Your task to perform on an android device: see sites visited before in the chrome app Image 0: 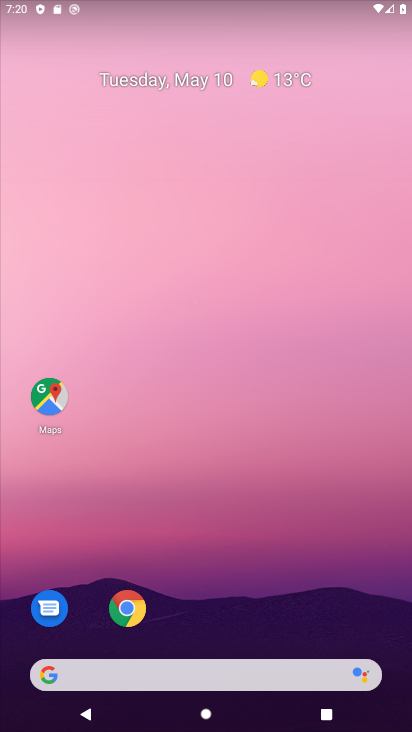
Step 0: click (142, 624)
Your task to perform on an android device: see sites visited before in the chrome app Image 1: 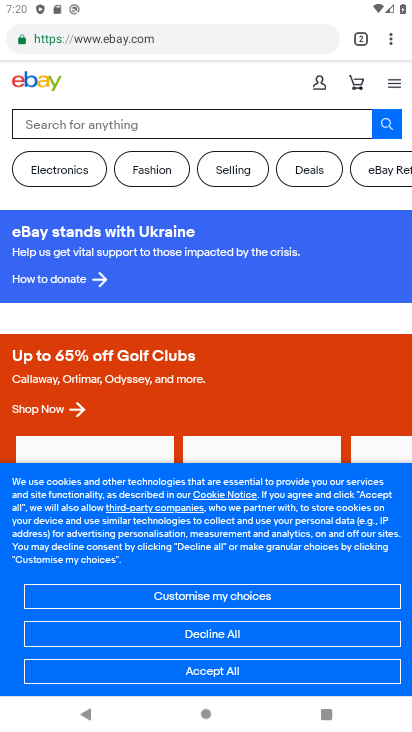
Step 1: click (393, 38)
Your task to perform on an android device: see sites visited before in the chrome app Image 2: 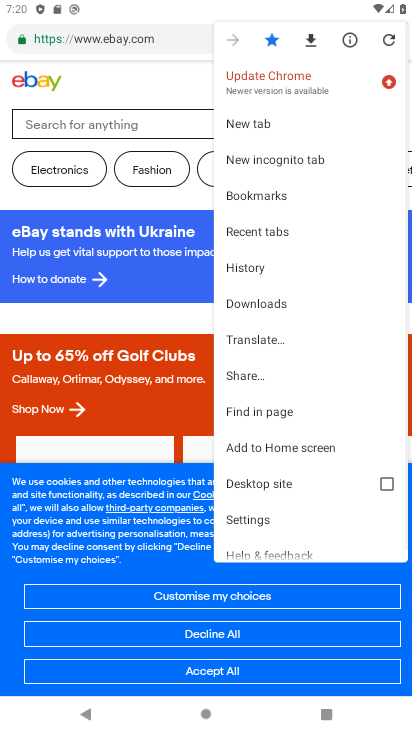
Step 2: click (286, 275)
Your task to perform on an android device: see sites visited before in the chrome app Image 3: 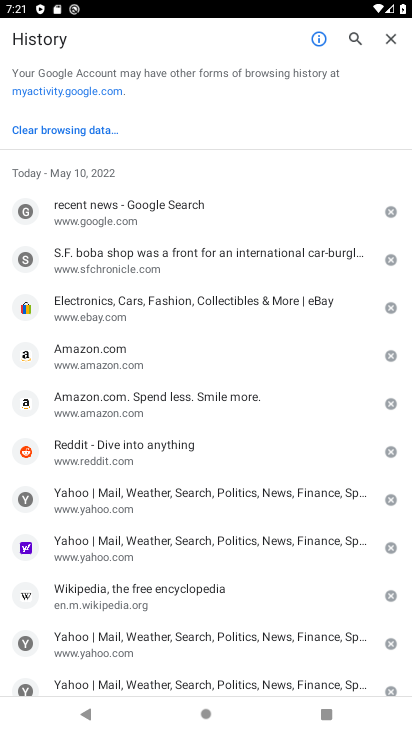
Step 3: task complete